Your task to perform on an android device: set the stopwatch Image 0: 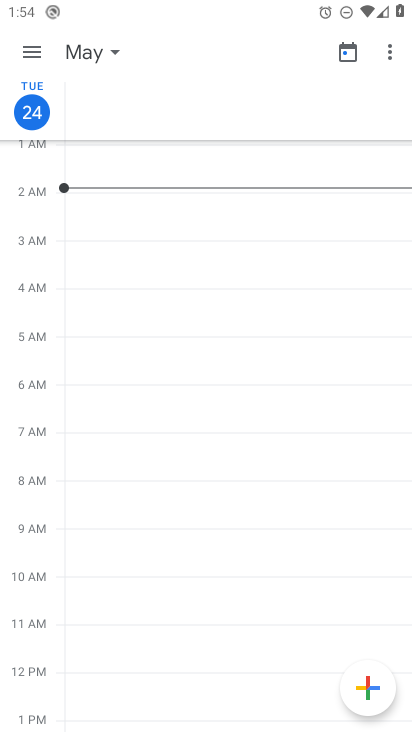
Step 0: press home button
Your task to perform on an android device: set the stopwatch Image 1: 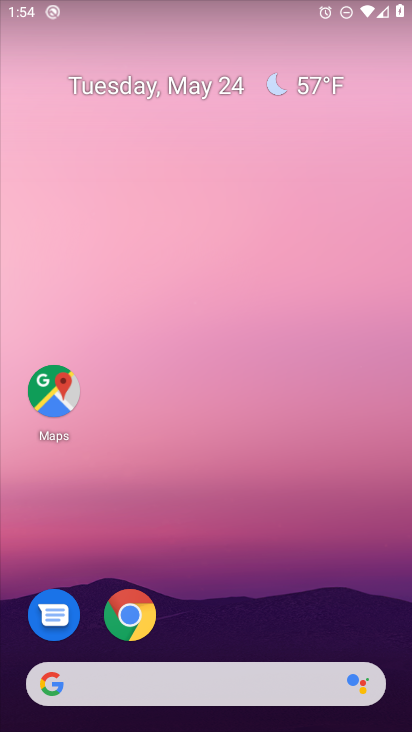
Step 1: drag from (197, 656) to (164, 241)
Your task to perform on an android device: set the stopwatch Image 2: 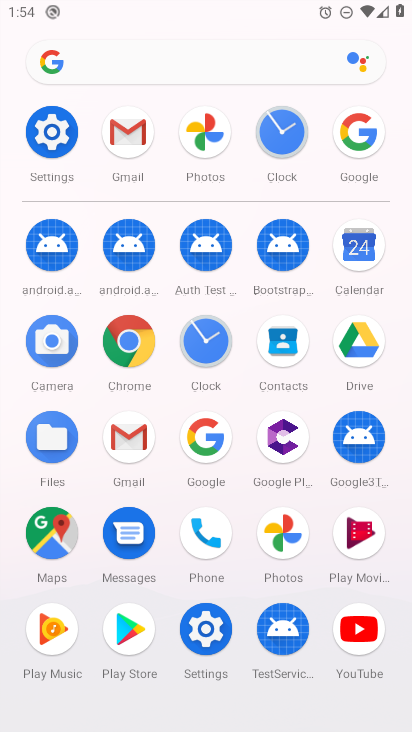
Step 2: click (277, 136)
Your task to perform on an android device: set the stopwatch Image 3: 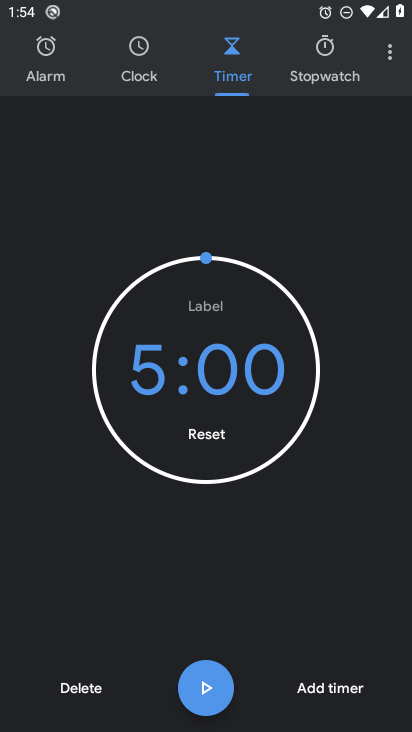
Step 3: click (319, 76)
Your task to perform on an android device: set the stopwatch Image 4: 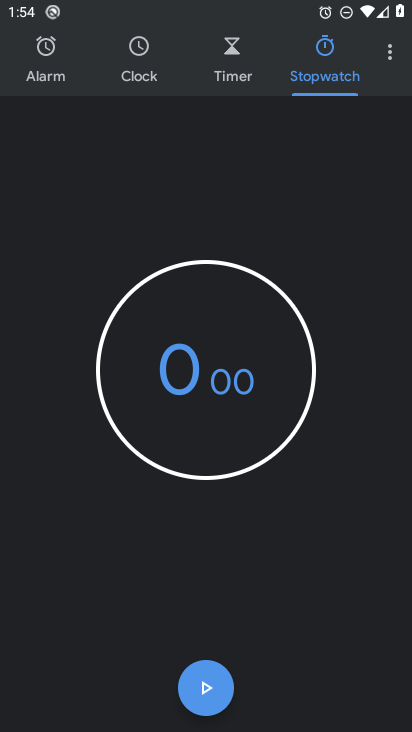
Step 4: click (208, 694)
Your task to perform on an android device: set the stopwatch Image 5: 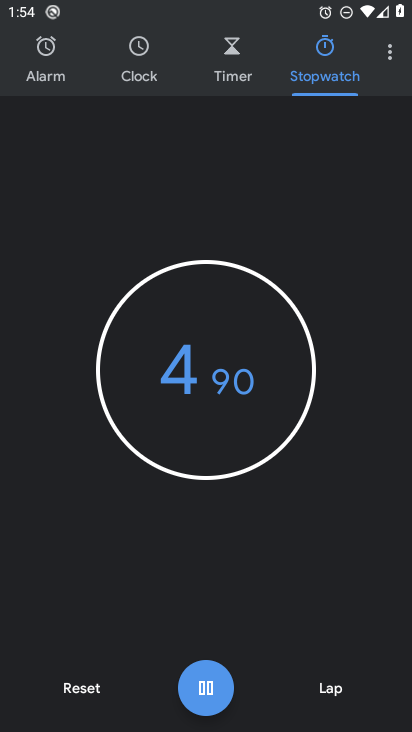
Step 5: click (201, 692)
Your task to perform on an android device: set the stopwatch Image 6: 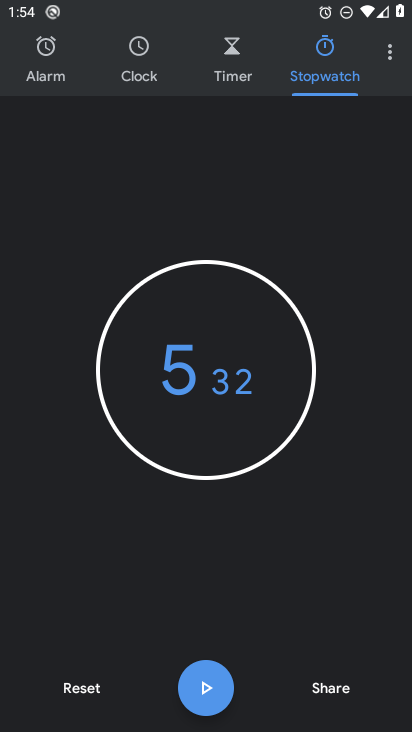
Step 6: task complete